Your task to perform on an android device: Is it going to rain tomorrow? Image 0: 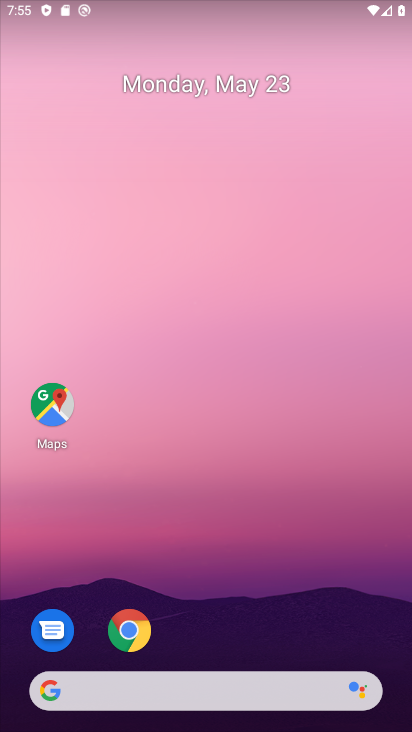
Step 0: click (235, 688)
Your task to perform on an android device: Is it going to rain tomorrow? Image 1: 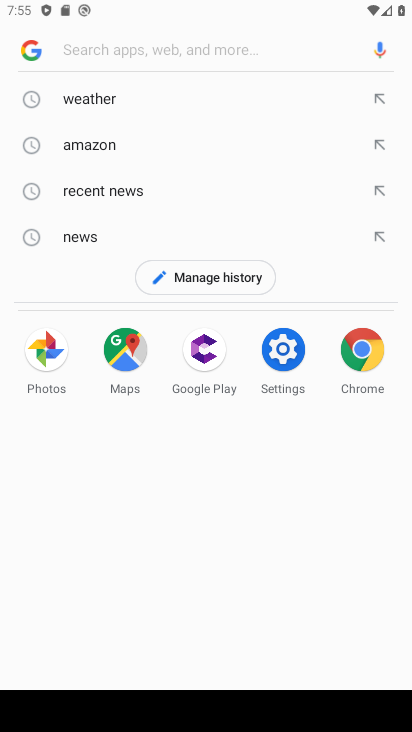
Step 1: click (148, 109)
Your task to perform on an android device: Is it going to rain tomorrow? Image 2: 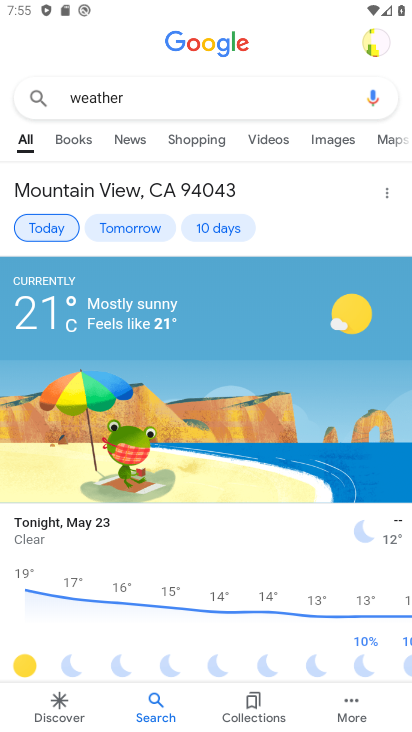
Step 2: click (131, 227)
Your task to perform on an android device: Is it going to rain tomorrow? Image 3: 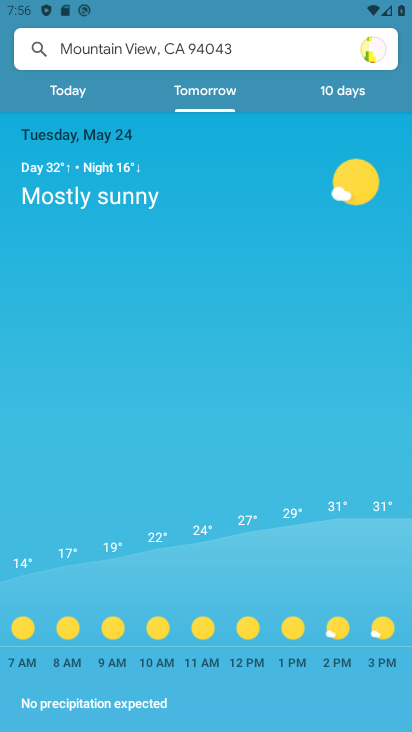
Step 3: task complete